Your task to perform on an android device: Go to CNN.com Image 0: 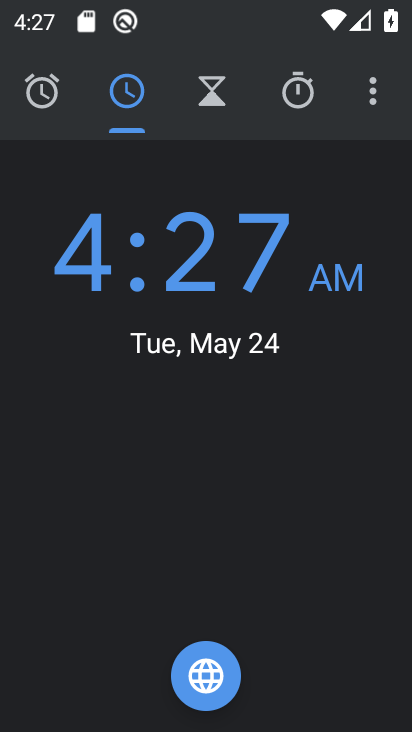
Step 0: press home button
Your task to perform on an android device: Go to CNN.com Image 1: 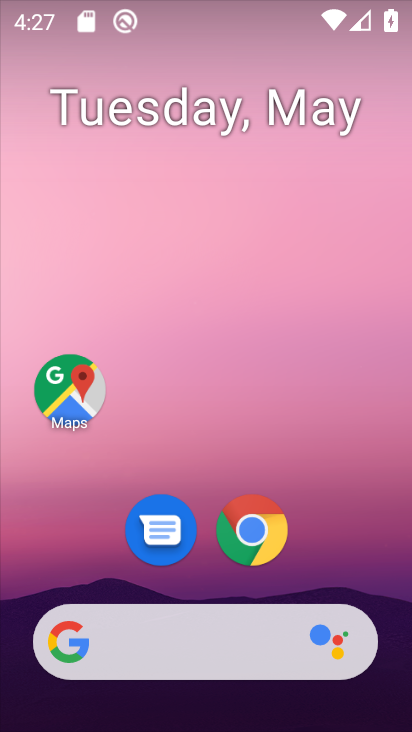
Step 1: click (212, 656)
Your task to perform on an android device: Go to CNN.com Image 2: 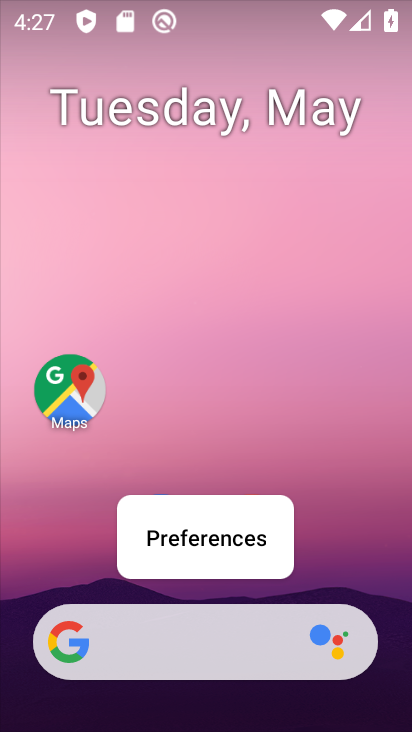
Step 2: click (204, 663)
Your task to perform on an android device: Go to CNN.com Image 3: 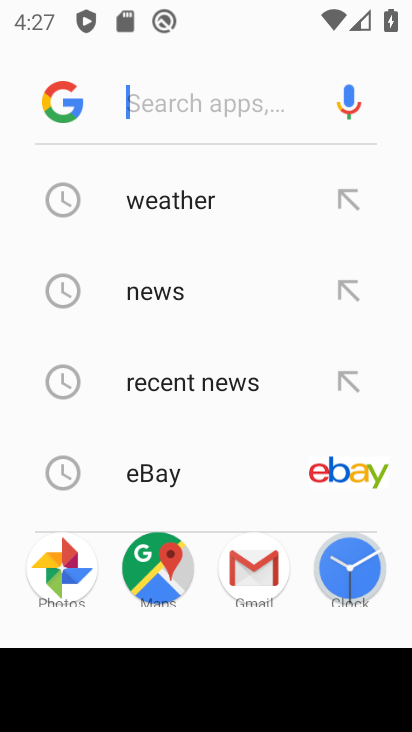
Step 3: type "CNN.com"
Your task to perform on an android device: Go to CNN.com Image 4: 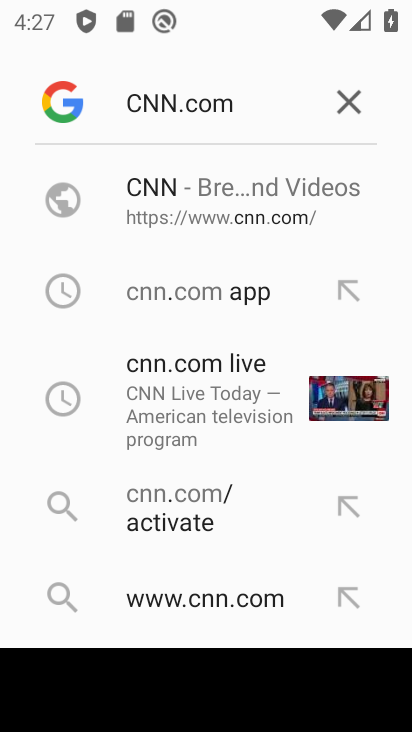
Step 4: click (223, 219)
Your task to perform on an android device: Go to CNN.com Image 5: 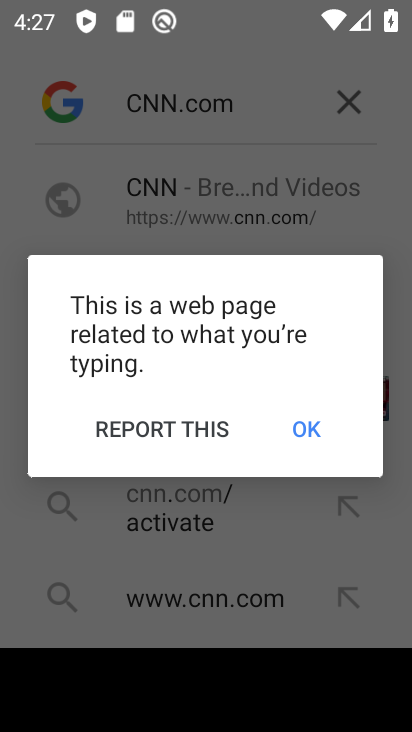
Step 5: click (303, 429)
Your task to perform on an android device: Go to CNN.com Image 6: 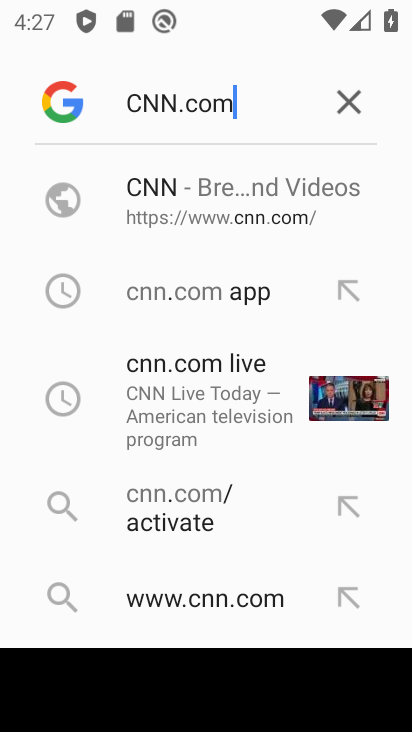
Step 6: click (328, 227)
Your task to perform on an android device: Go to CNN.com Image 7: 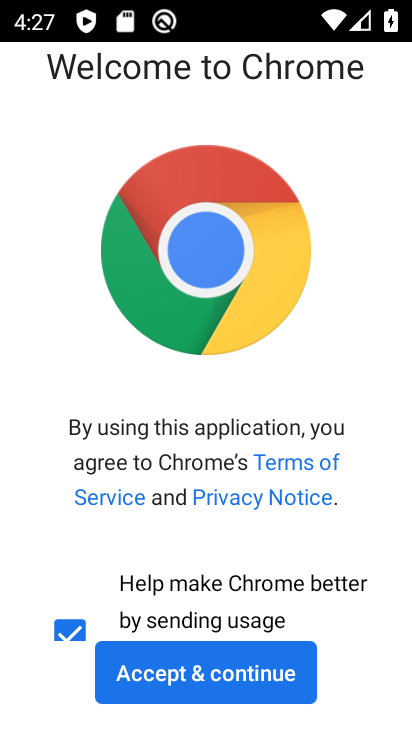
Step 7: click (258, 696)
Your task to perform on an android device: Go to CNN.com Image 8: 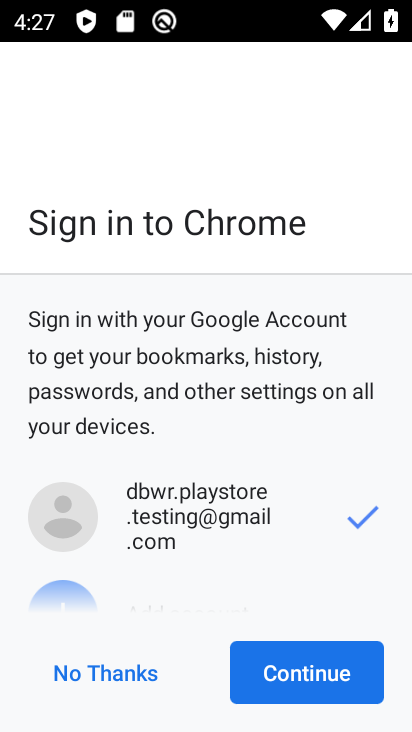
Step 8: click (297, 674)
Your task to perform on an android device: Go to CNN.com Image 9: 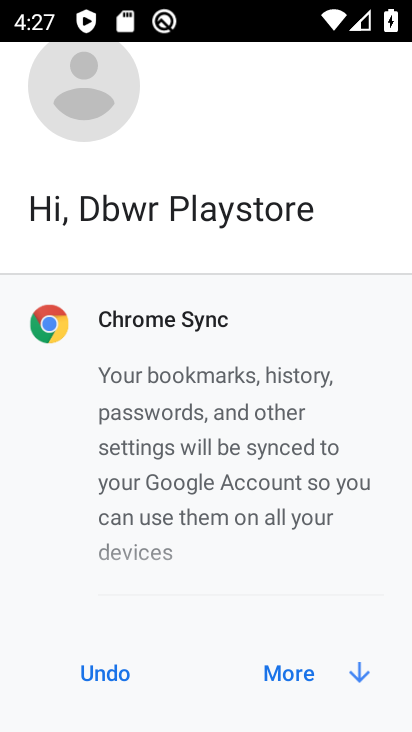
Step 9: click (316, 669)
Your task to perform on an android device: Go to CNN.com Image 10: 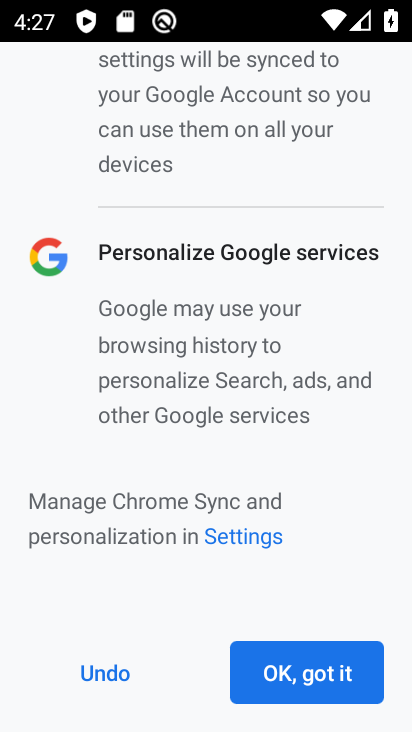
Step 10: click (316, 669)
Your task to perform on an android device: Go to CNN.com Image 11: 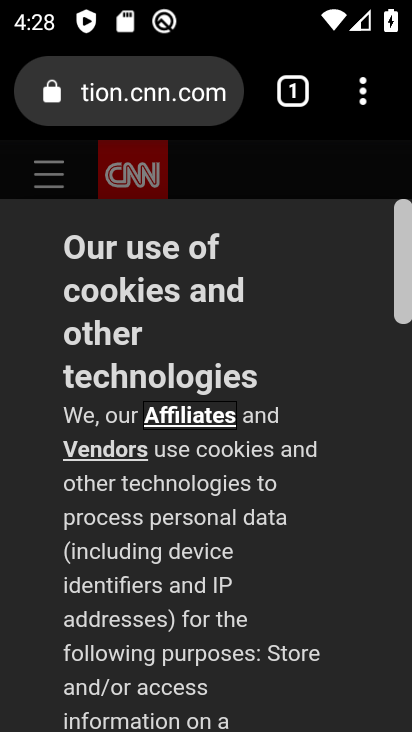
Step 11: drag from (237, 627) to (334, 264)
Your task to perform on an android device: Go to CNN.com Image 12: 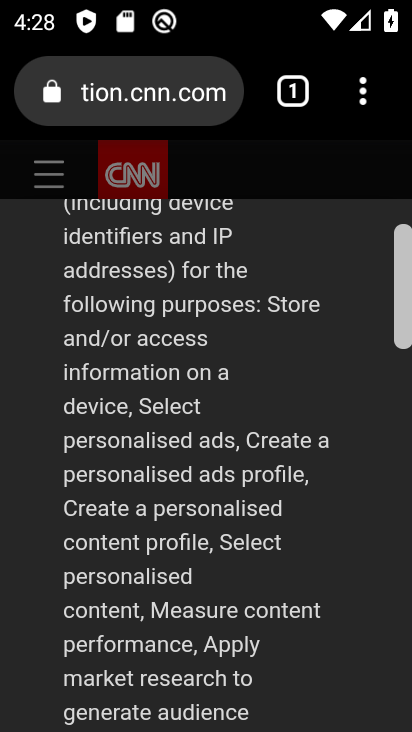
Step 12: drag from (222, 551) to (291, 152)
Your task to perform on an android device: Go to CNN.com Image 13: 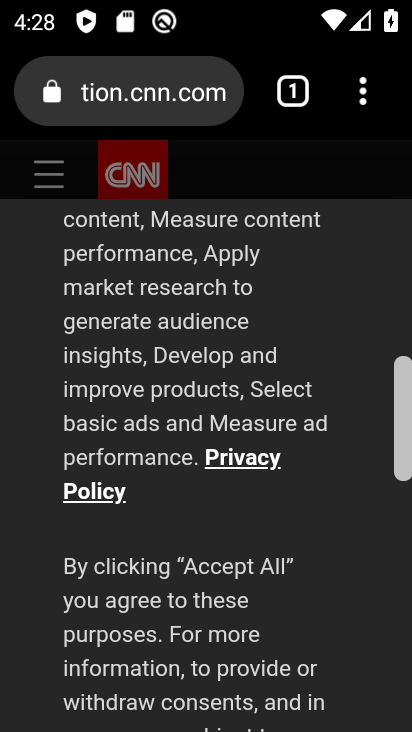
Step 13: drag from (241, 481) to (340, 196)
Your task to perform on an android device: Go to CNN.com Image 14: 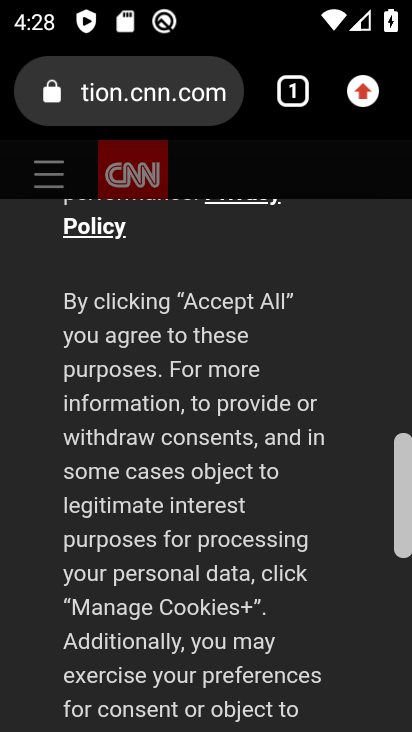
Step 14: drag from (229, 587) to (347, 221)
Your task to perform on an android device: Go to CNN.com Image 15: 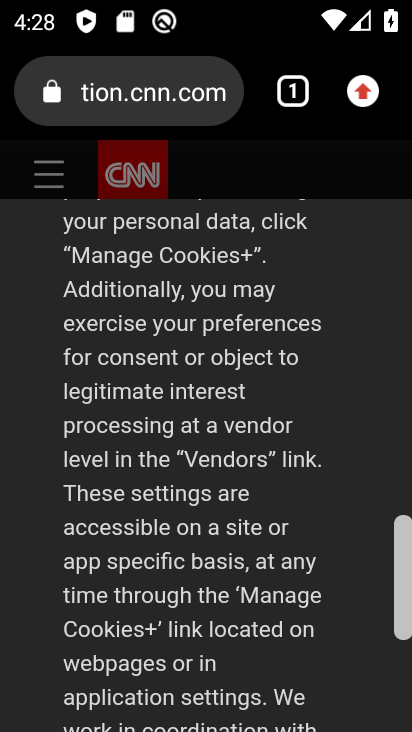
Step 15: drag from (262, 574) to (359, 288)
Your task to perform on an android device: Go to CNN.com Image 16: 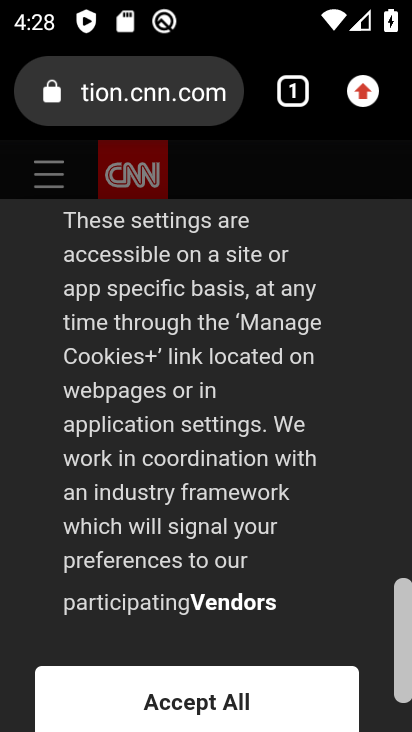
Step 16: drag from (310, 563) to (377, 236)
Your task to perform on an android device: Go to CNN.com Image 17: 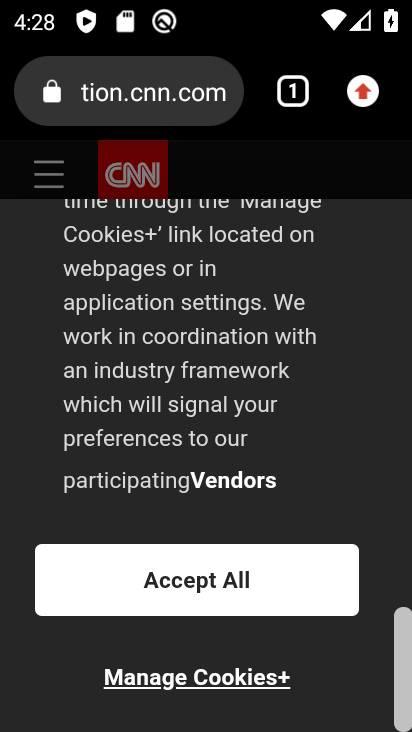
Step 17: click (288, 613)
Your task to perform on an android device: Go to CNN.com Image 18: 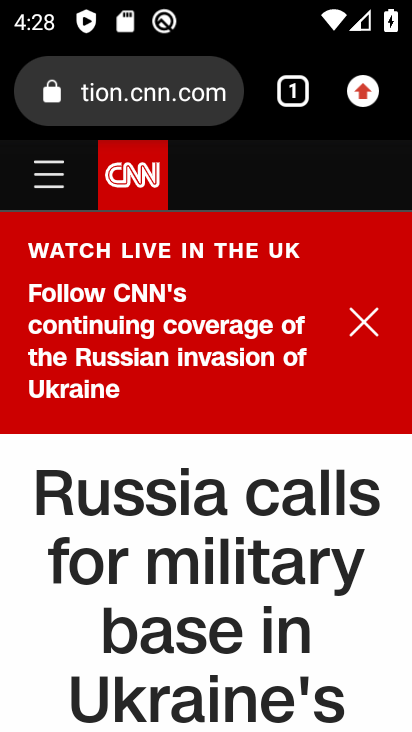
Step 18: task complete